Your task to perform on an android device: Open Google Chrome and click the shortcut for Amazon.com Image 0: 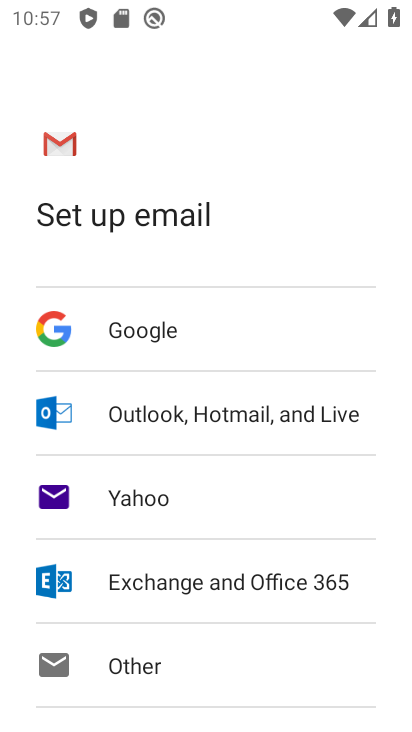
Step 0: press home button
Your task to perform on an android device: Open Google Chrome and click the shortcut for Amazon.com Image 1: 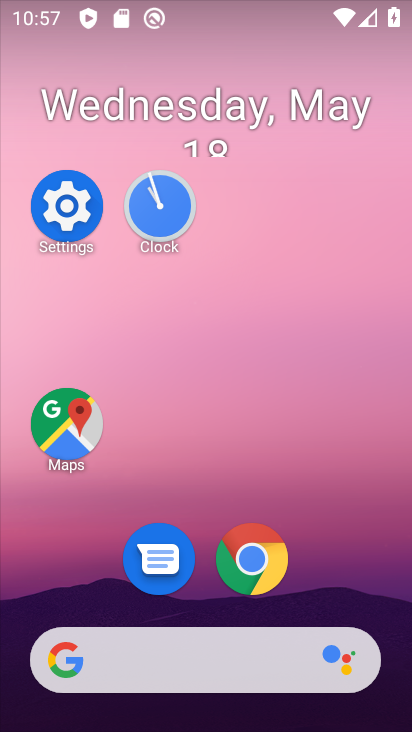
Step 1: click (275, 561)
Your task to perform on an android device: Open Google Chrome and click the shortcut for Amazon.com Image 2: 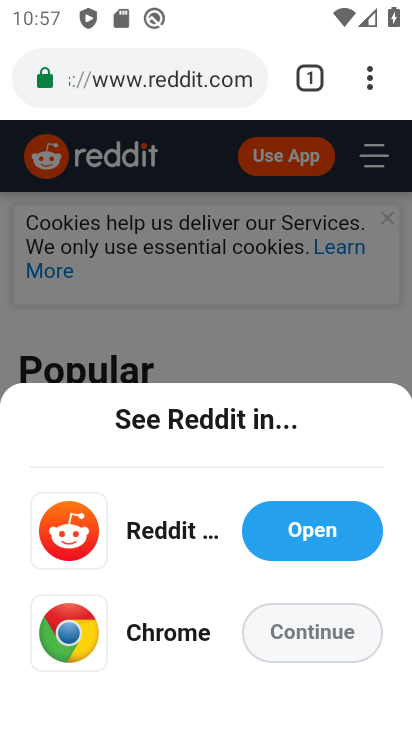
Step 2: click (323, 71)
Your task to perform on an android device: Open Google Chrome and click the shortcut for Amazon.com Image 3: 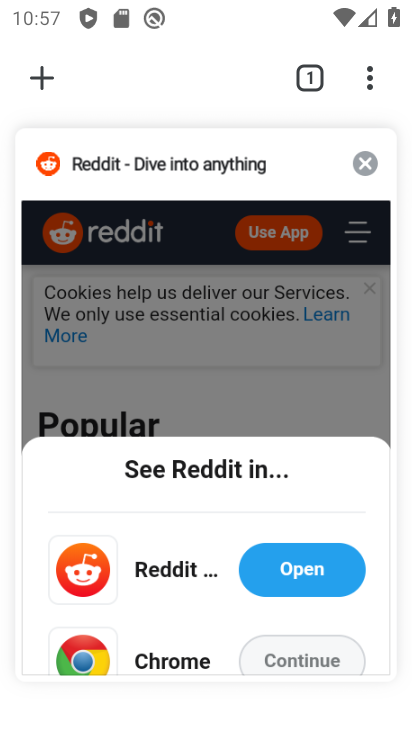
Step 3: click (61, 66)
Your task to perform on an android device: Open Google Chrome and click the shortcut for Amazon.com Image 4: 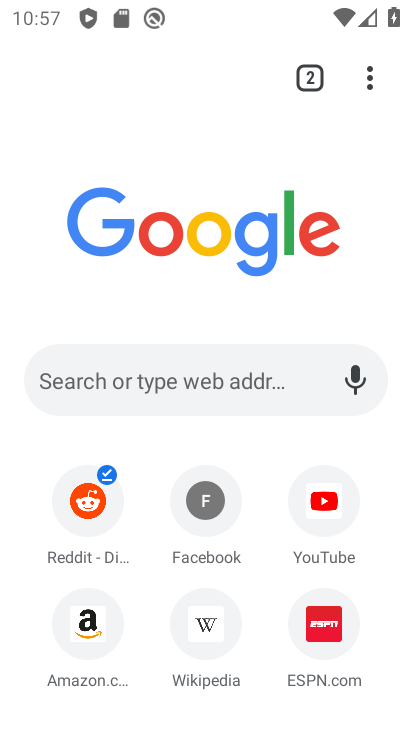
Step 4: click (97, 622)
Your task to perform on an android device: Open Google Chrome and click the shortcut for Amazon.com Image 5: 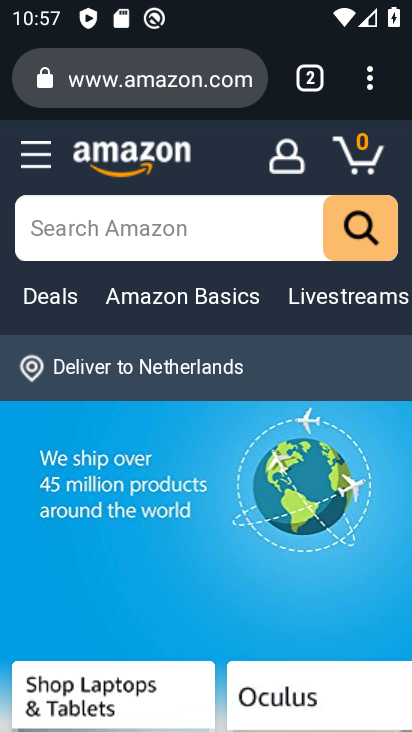
Step 5: click (369, 70)
Your task to perform on an android device: Open Google Chrome and click the shortcut for Amazon.com Image 6: 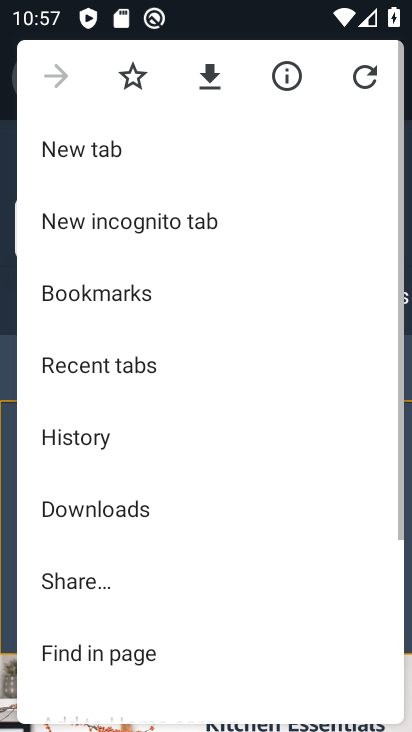
Step 6: drag from (179, 514) to (203, 211)
Your task to perform on an android device: Open Google Chrome and click the shortcut for Amazon.com Image 7: 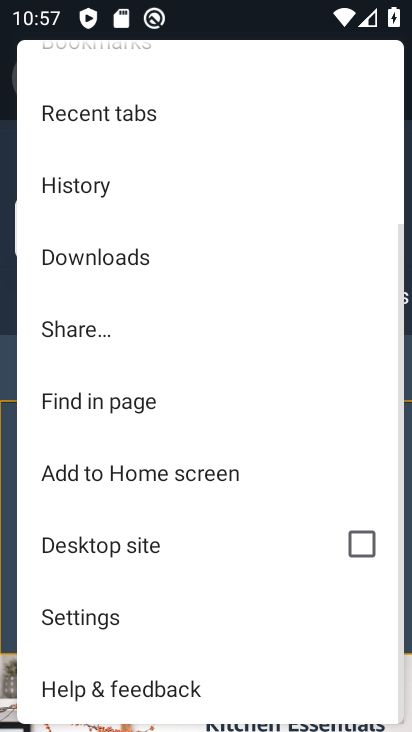
Step 7: drag from (189, 566) to (207, 318)
Your task to perform on an android device: Open Google Chrome and click the shortcut for Amazon.com Image 8: 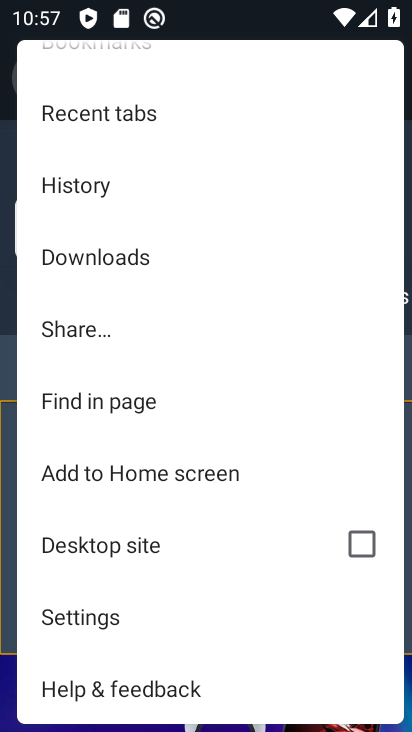
Step 8: click (185, 476)
Your task to perform on an android device: Open Google Chrome and click the shortcut for Amazon.com Image 9: 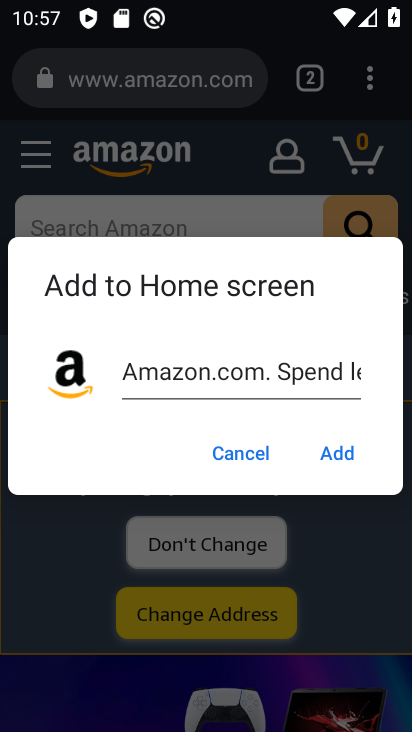
Step 9: click (333, 447)
Your task to perform on an android device: Open Google Chrome and click the shortcut for Amazon.com Image 10: 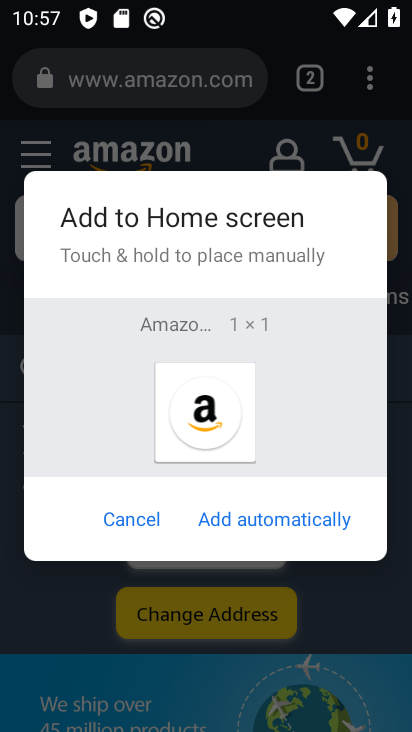
Step 10: click (267, 514)
Your task to perform on an android device: Open Google Chrome and click the shortcut for Amazon.com Image 11: 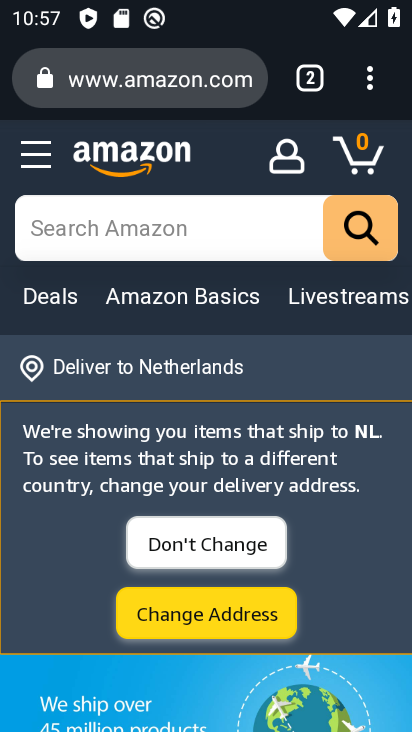
Step 11: task complete